Your task to perform on an android device: set the stopwatch Image 0: 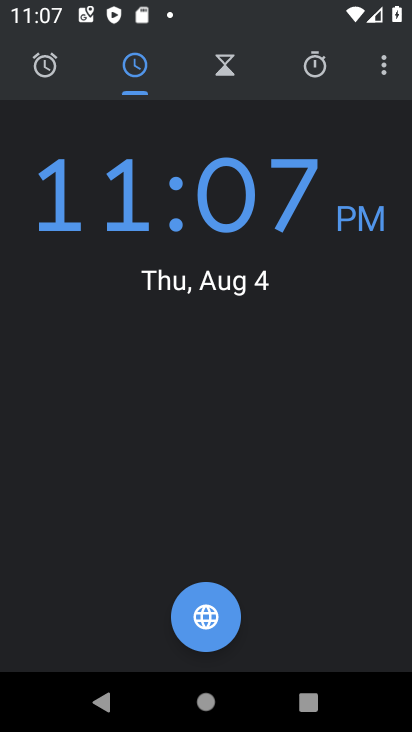
Step 0: click (321, 62)
Your task to perform on an android device: set the stopwatch Image 1: 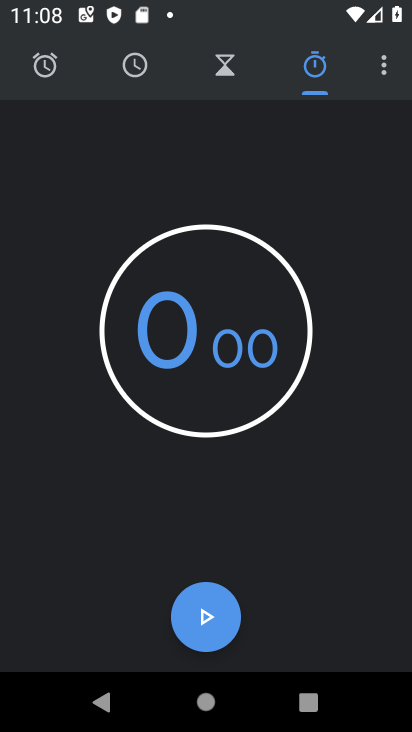
Step 1: task complete